Your task to perform on an android device: Open Amazon Image 0: 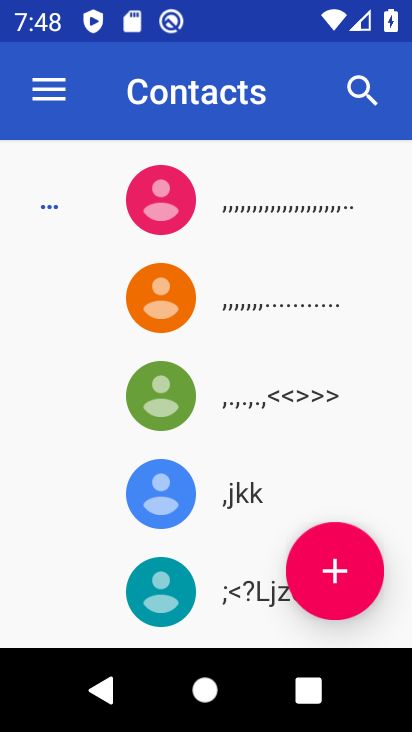
Step 0: click (352, 243)
Your task to perform on an android device: Open Amazon Image 1: 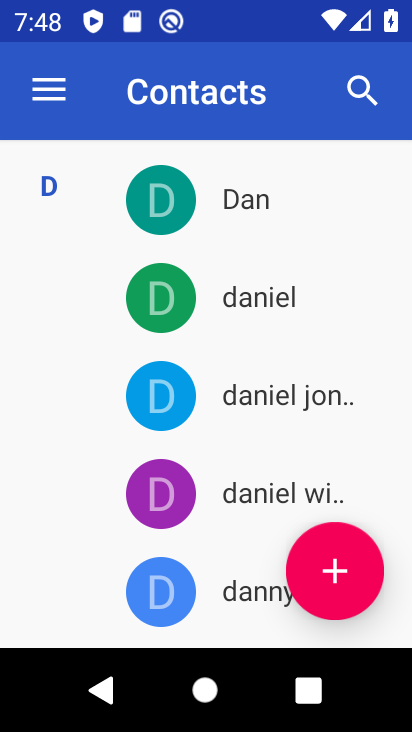
Step 1: press home button
Your task to perform on an android device: Open Amazon Image 2: 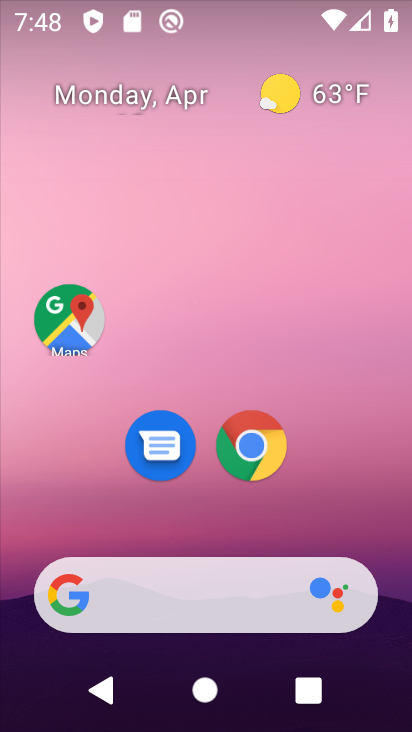
Step 2: click (252, 448)
Your task to perform on an android device: Open Amazon Image 3: 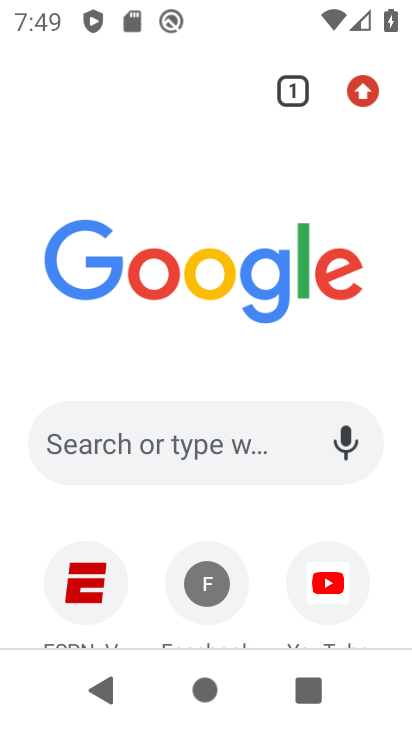
Step 3: click (373, 90)
Your task to perform on an android device: Open Amazon Image 4: 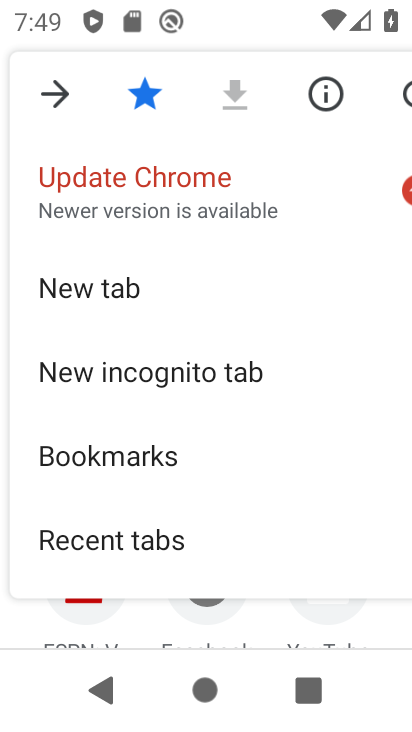
Step 4: click (321, 341)
Your task to perform on an android device: Open Amazon Image 5: 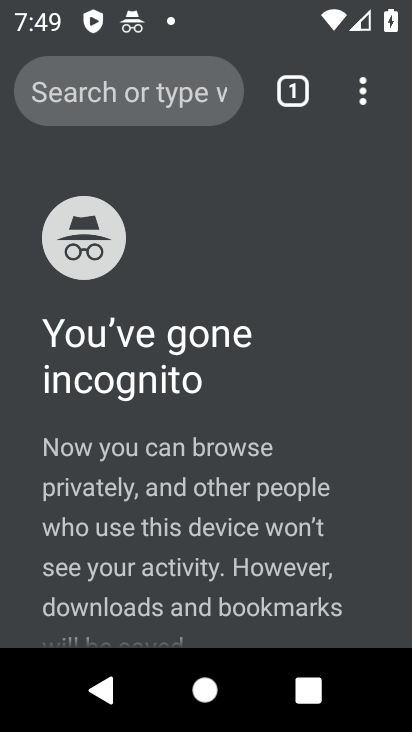
Step 5: click (363, 89)
Your task to perform on an android device: Open Amazon Image 6: 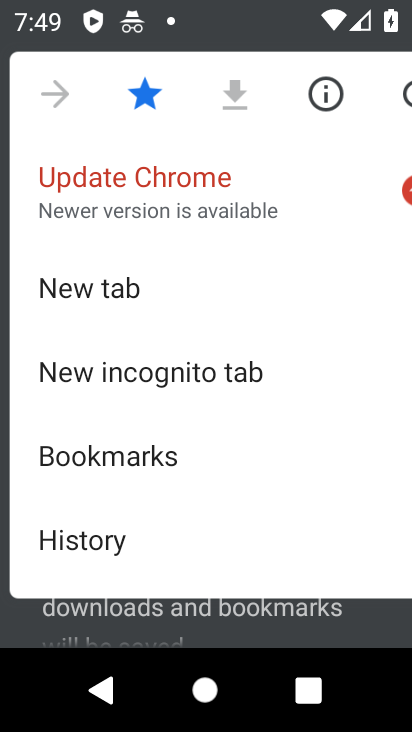
Step 6: click (106, 288)
Your task to perform on an android device: Open Amazon Image 7: 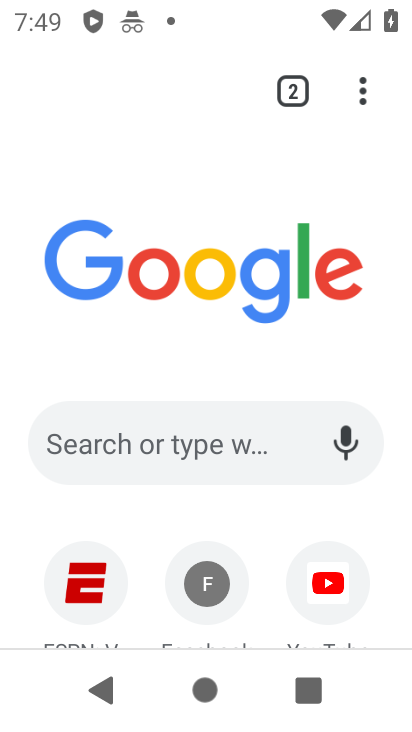
Step 7: click (126, 440)
Your task to perform on an android device: Open Amazon Image 8: 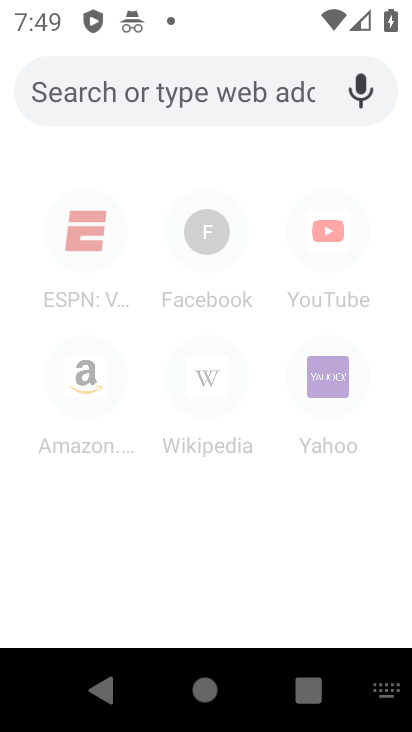
Step 8: type " Amazon"
Your task to perform on an android device: Open Amazon Image 9: 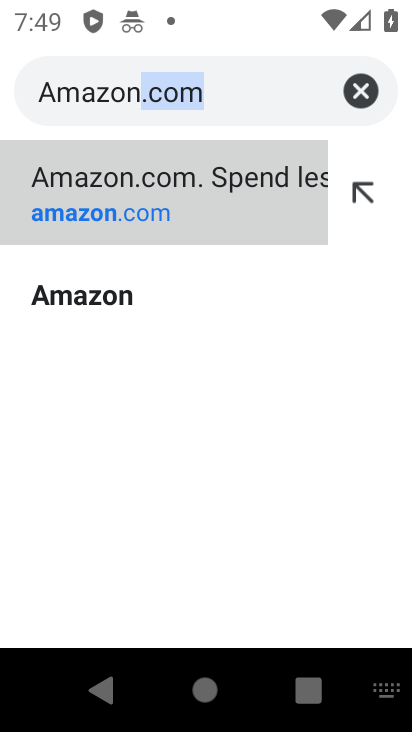
Step 9: click (139, 218)
Your task to perform on an android device: Open Amazon Image 10: 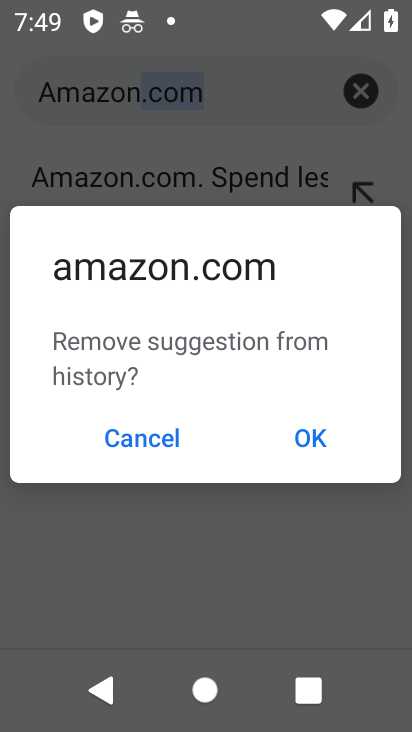
Step 10: click (299, 439)
Your task to perform on an android device: Open Amazon Image 11: 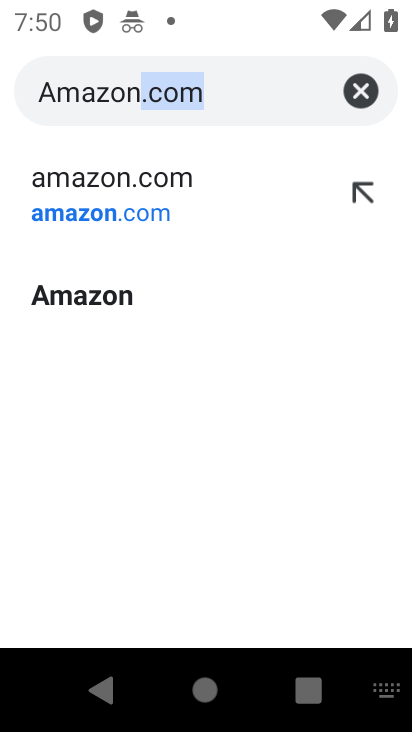
Step 11: click (87, 205)
Your task to perform on an android device: Open Amazon Image 12: 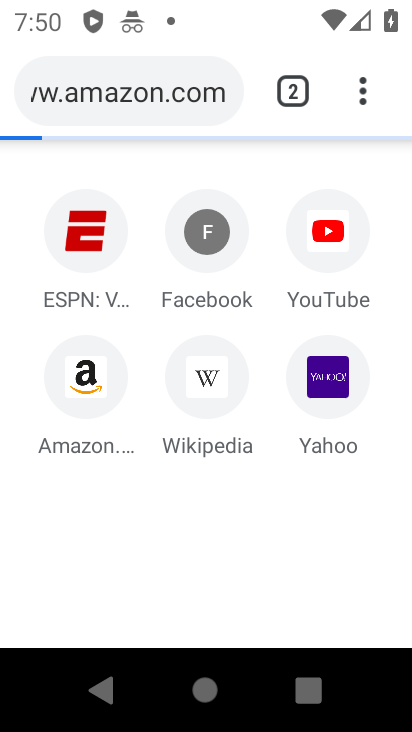
Step 12: click (96, 203)
Your task to perform on an android device: Open Amazon Image 13: 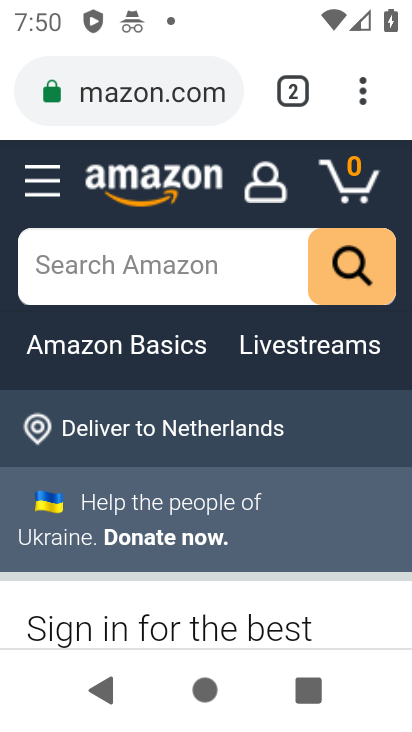
Step 13: task complete